Your task to perform on an android device: toggle javascript in the chrome app Image 0: 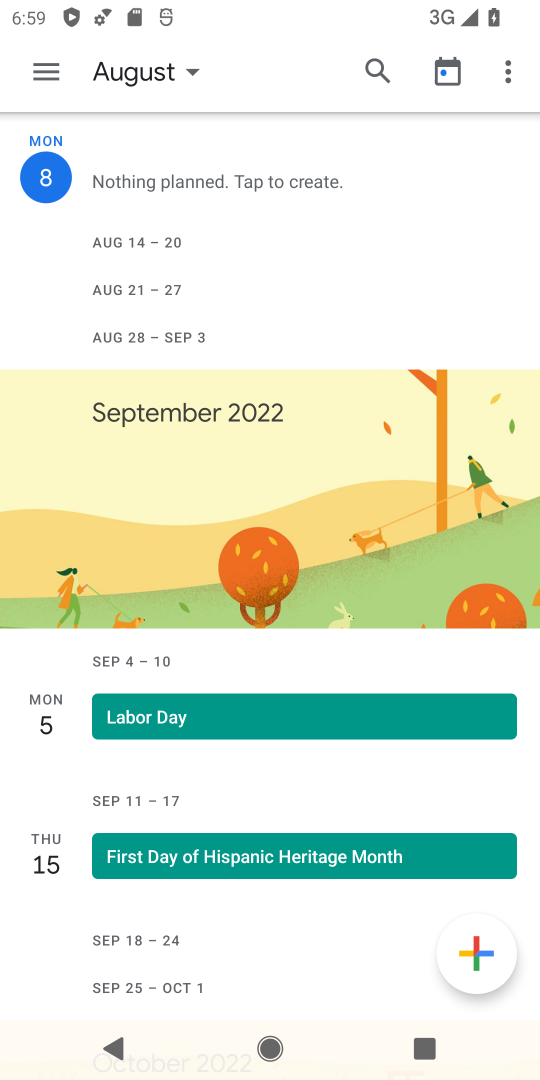
Step 0: press back button
Your task to perform on an android device: toggle javascript in the chrome app Image 1: 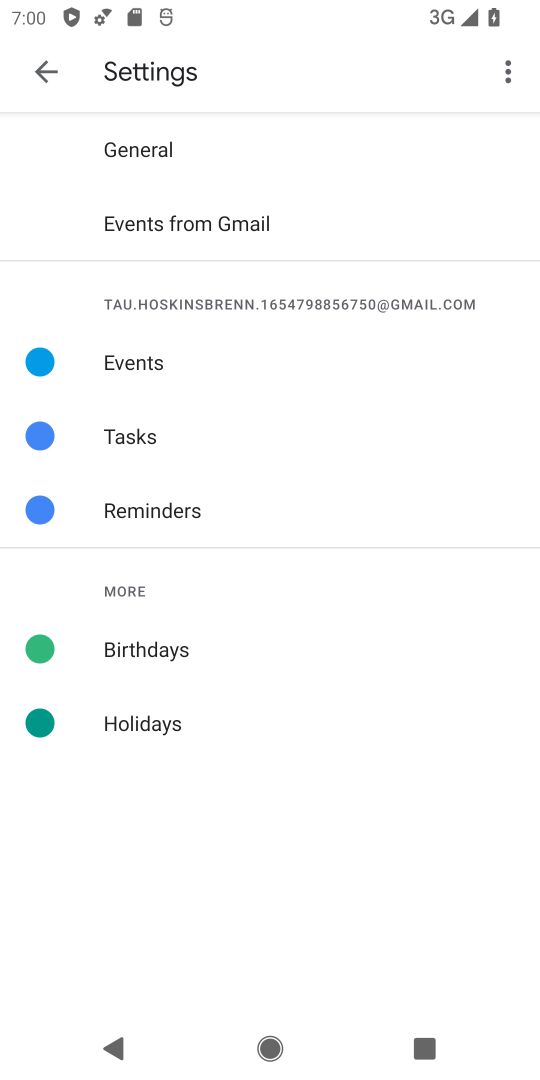
Step 1: press home button
Your task to perform on an android device: toggle javascript in the chrome app Image 2: 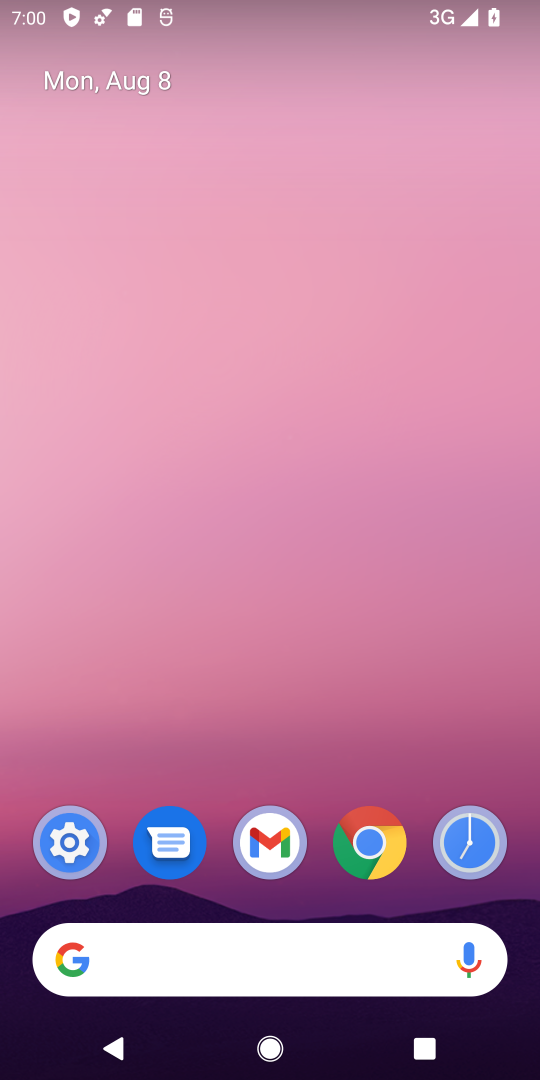
Step 2: click (381, 837)
Your task to perform on an android device: toggle javascript in the chrome app Image 3: 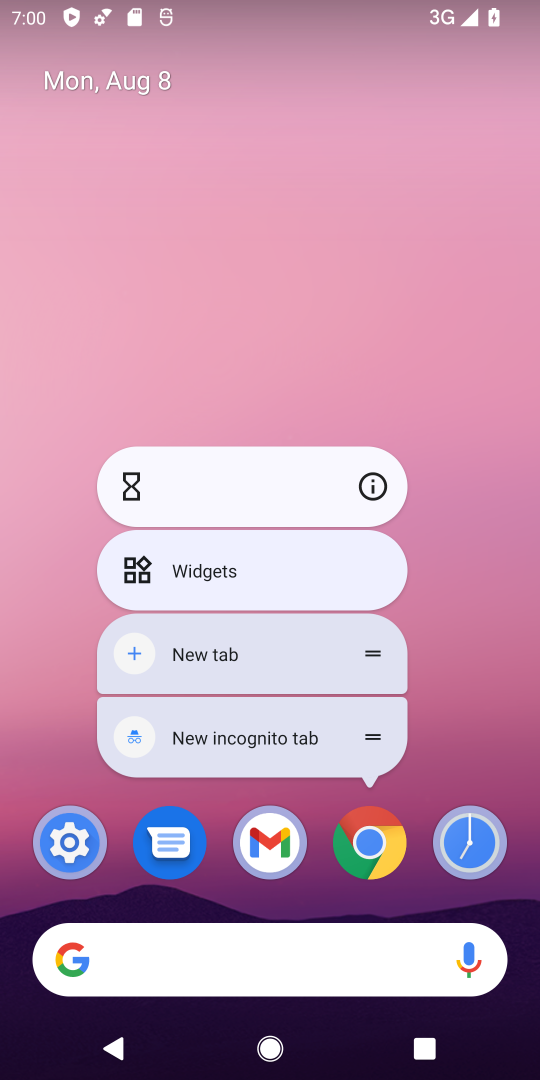
Step 3: click (392, 831)
Your task to perform on an android device: toggle javascript in the chrome app Image 4: 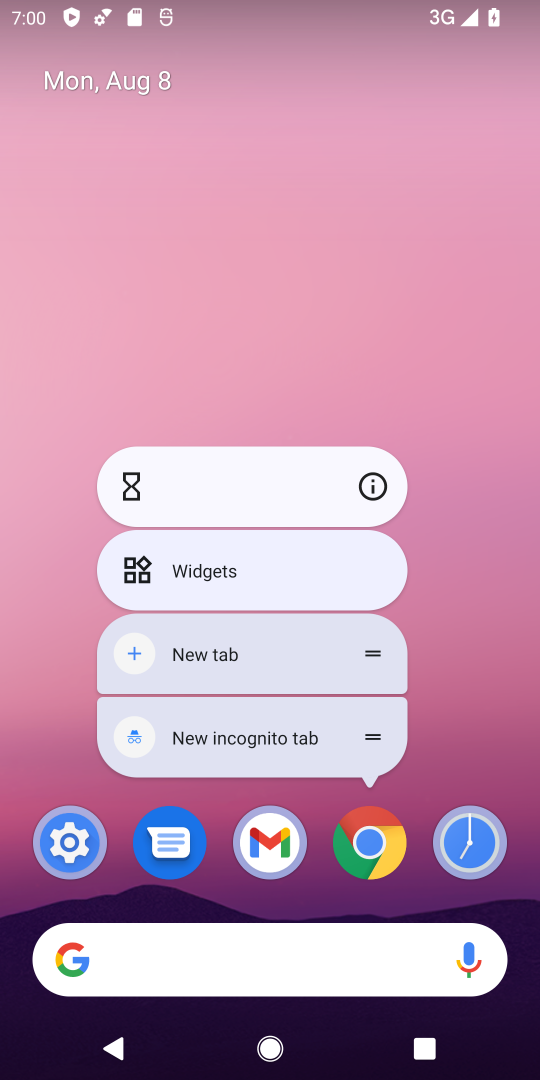
Step 4: click (392, 831)
Your task to perform on an android device: toggle javascript in the chrome app Image 5: 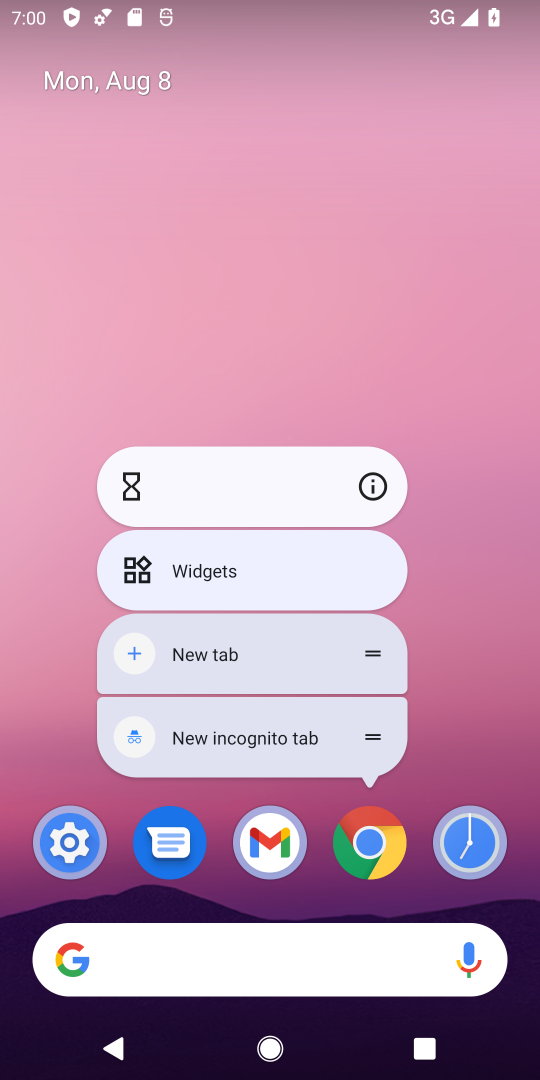
Step 5: click (392, 831)
Your task to perform on an android device: toggle javascript in the chrome app Image 6: 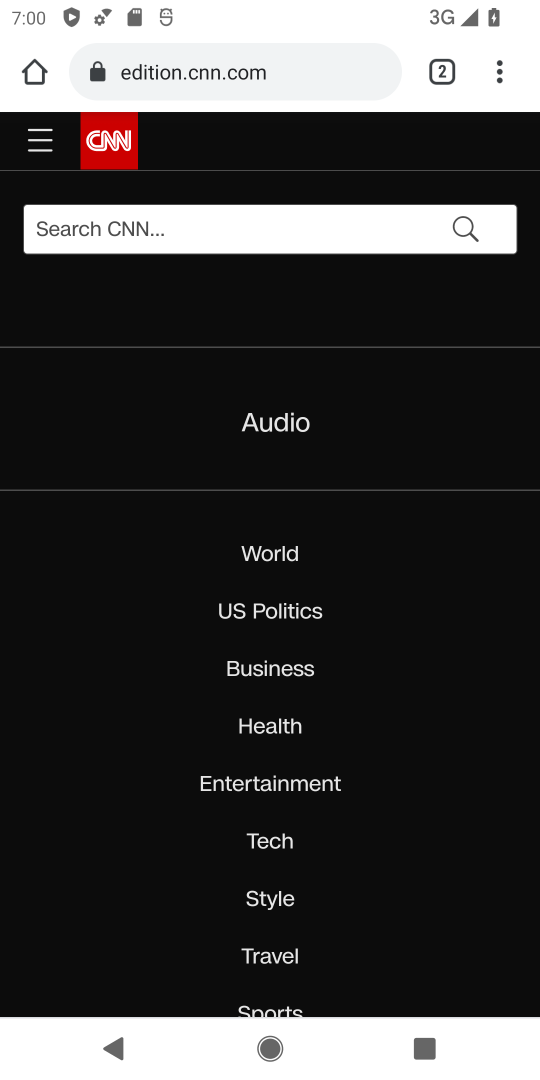
Step 6: drag from (498, 84) to (266, 847)
Your task to perform on an android device: toggle javascript in the chrome app Image 7: 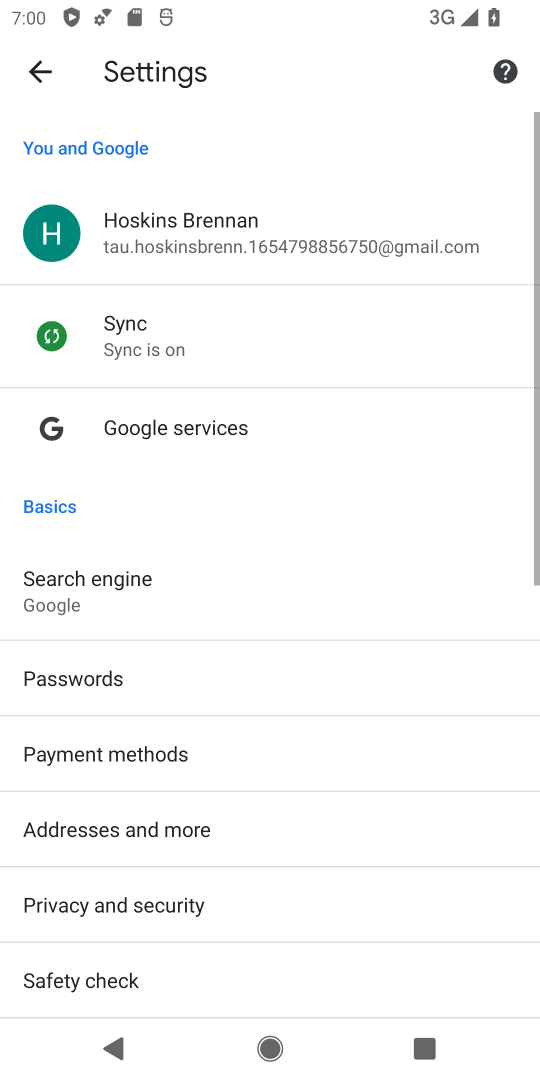
Step 7: drag from (219, 987) to (203, 264)
Your task to perform on an android device: toggle javascript in the chrome app Image 8: 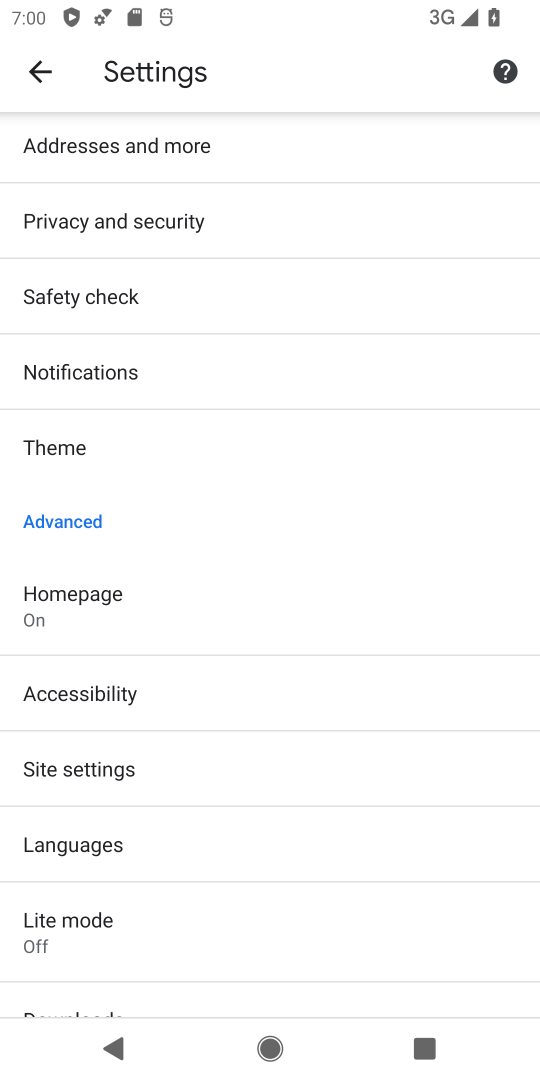
Step 8: click (112, 792)
Your task to perform on an android device: toggle javascript in the chrome app Image 9: 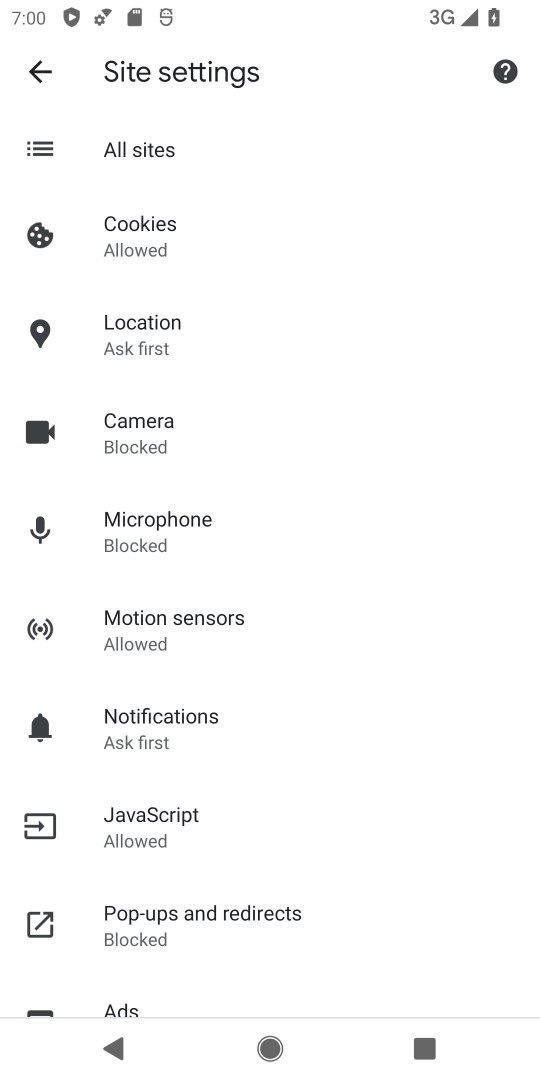
Step 9: click (173, 829)
Your task to perform on an android device: toggle javascript in the chrome app Image 10: 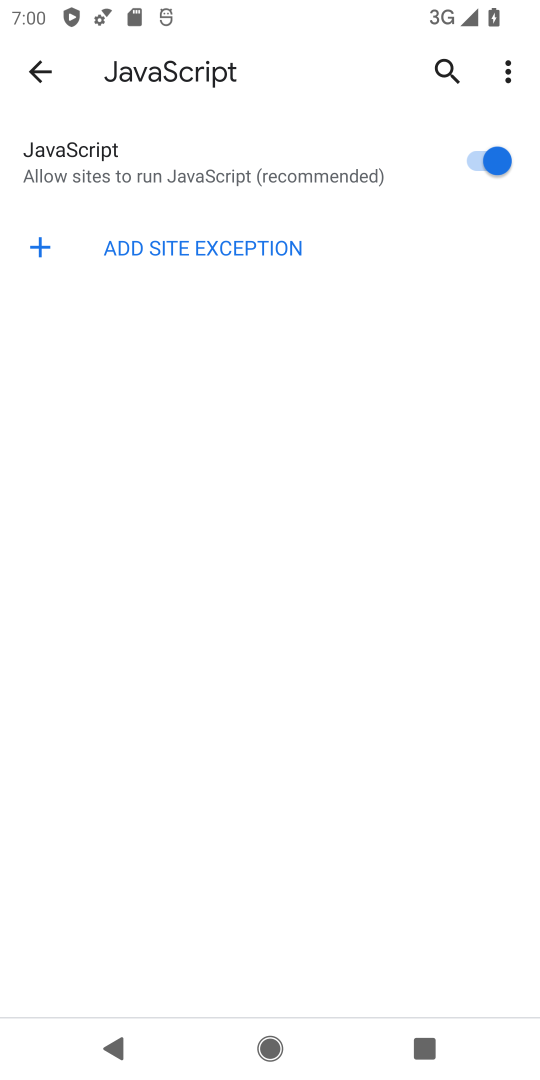
Step 10: click (476, 162)
Your task to perform on an android device: toggle javascript in the chrome app Image 11: 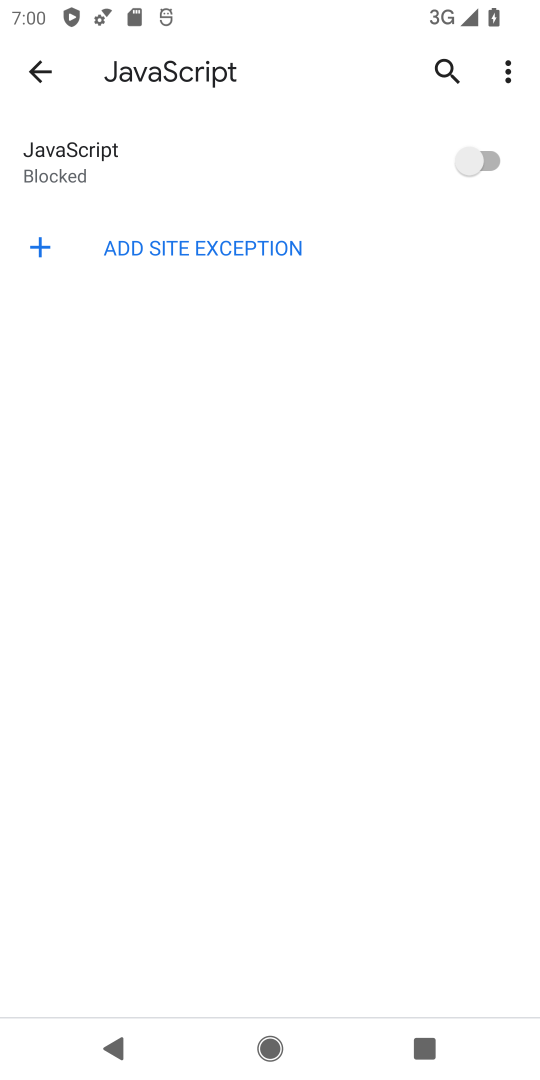
Step 11: task complete